Your task to perform on an android device: turn off translation in the chrome app Image 0: 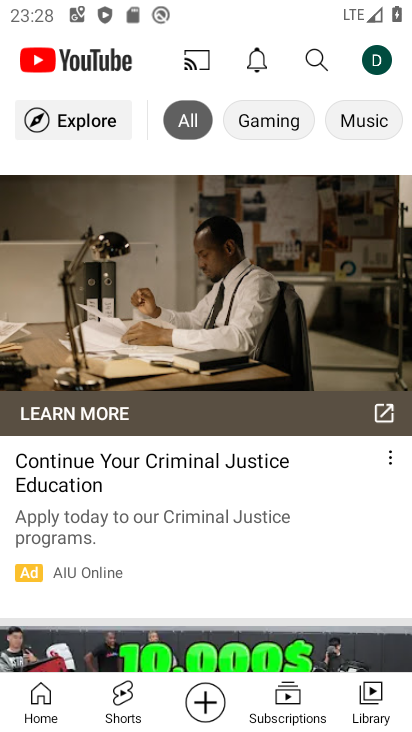
Step 0: press home button
Your task to perform on an android device: turn off translation in the chrome app Image 1: 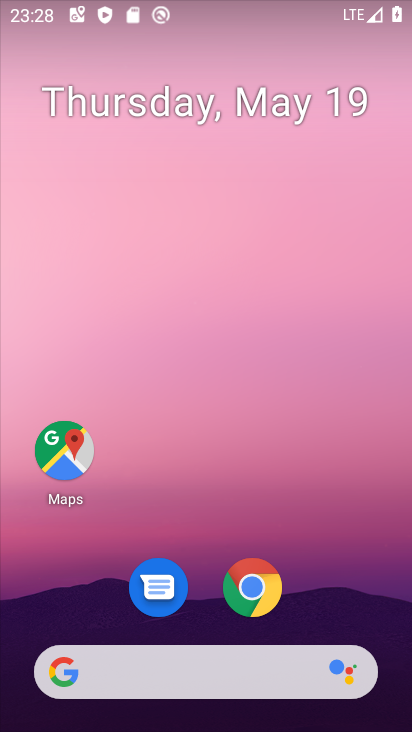
Step 1: drag from (244, 705) to (255, 219)
Your task to perform on an android device: turn off translation in the chrome app Image 2: 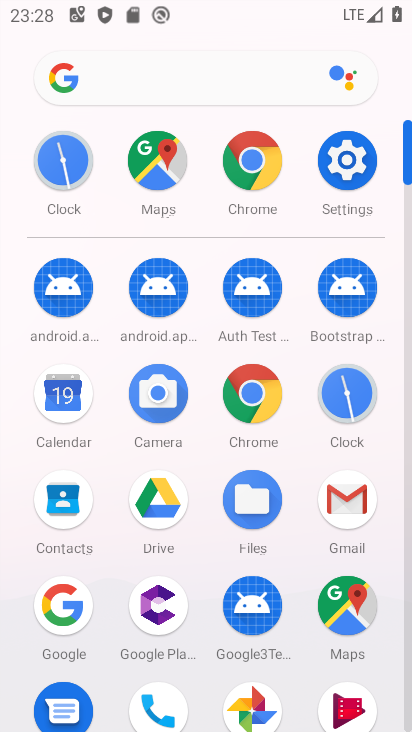
Step 2: click (254, 166)
Your task to perform on an android device: turn off translation in the chrome app Image 3: 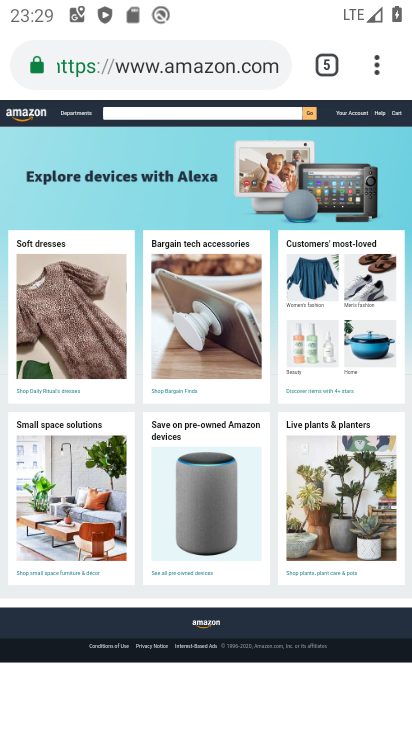
Step 3: click (370, 85)
Your task to perform on an android device: turn off translation in the chrome app Image 4: 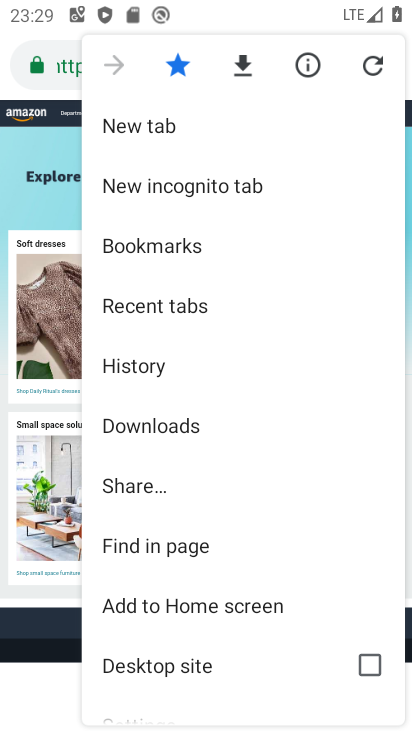
Step 4: drag from (244, 616) to (182, 411)
Your task to perform on an android device: turn off translation in the chrome app Image 5: 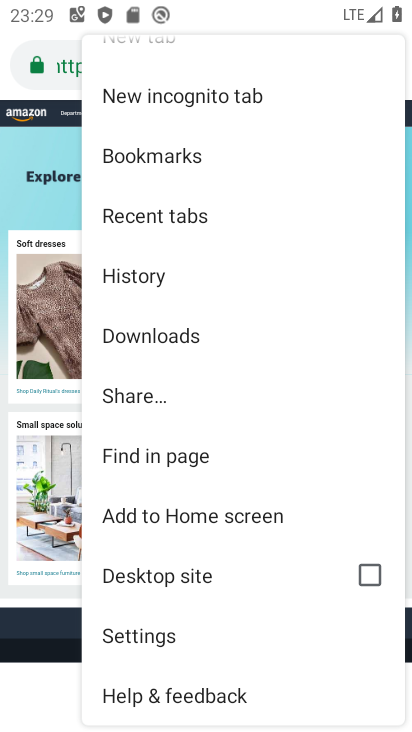
Step 5: click (178, 632)
Your task to perform on an android device: turn off translation in the chrome app Image 6: 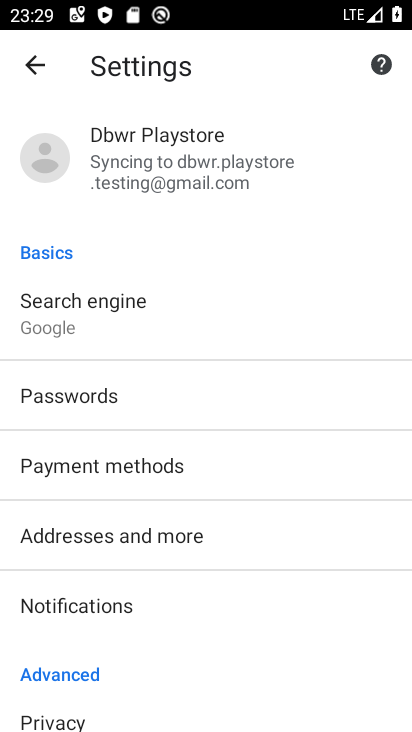
Step 6: drag from (178, 639) to (165, 415)
Your task to perform on an android device: turn off translation in the chrome app Image 7: 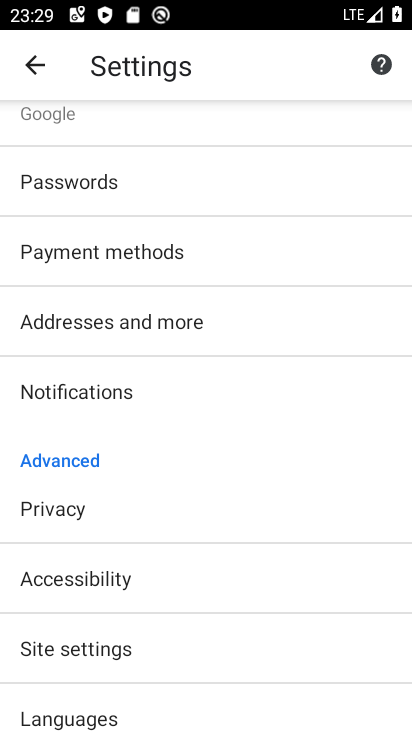
Step 7: click (85, 715)
Your task to perform on an android device: turn off translation in the chrome app Image 8: 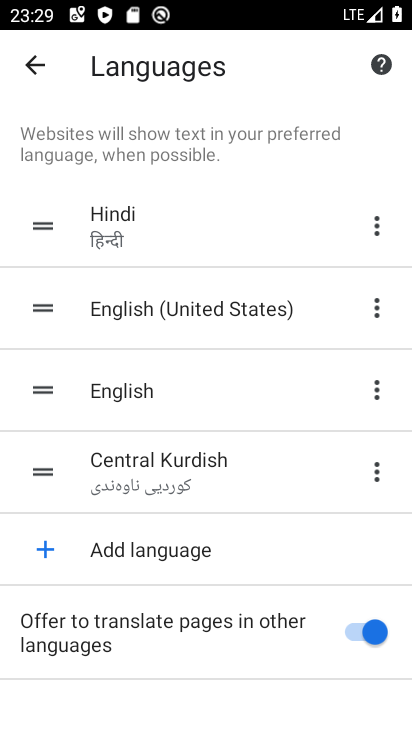
Step 8: click (357, 633)
Your task to perform on an android device: turn off translation in the chrome app Image 9: 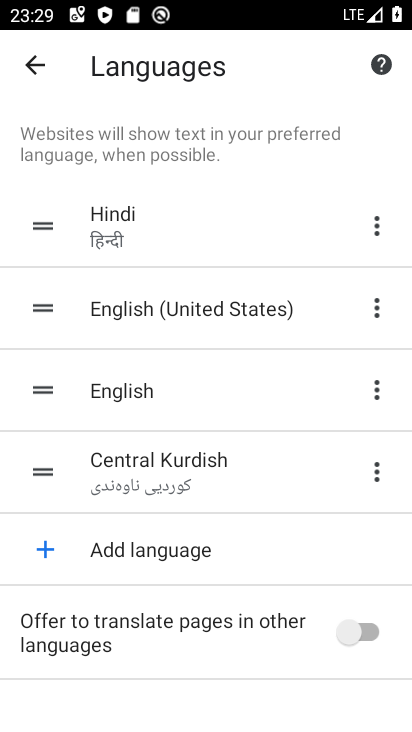
Step 9: task complete